Your task to perform on an android device: Check the settings for the Google Play Music app Image 0: 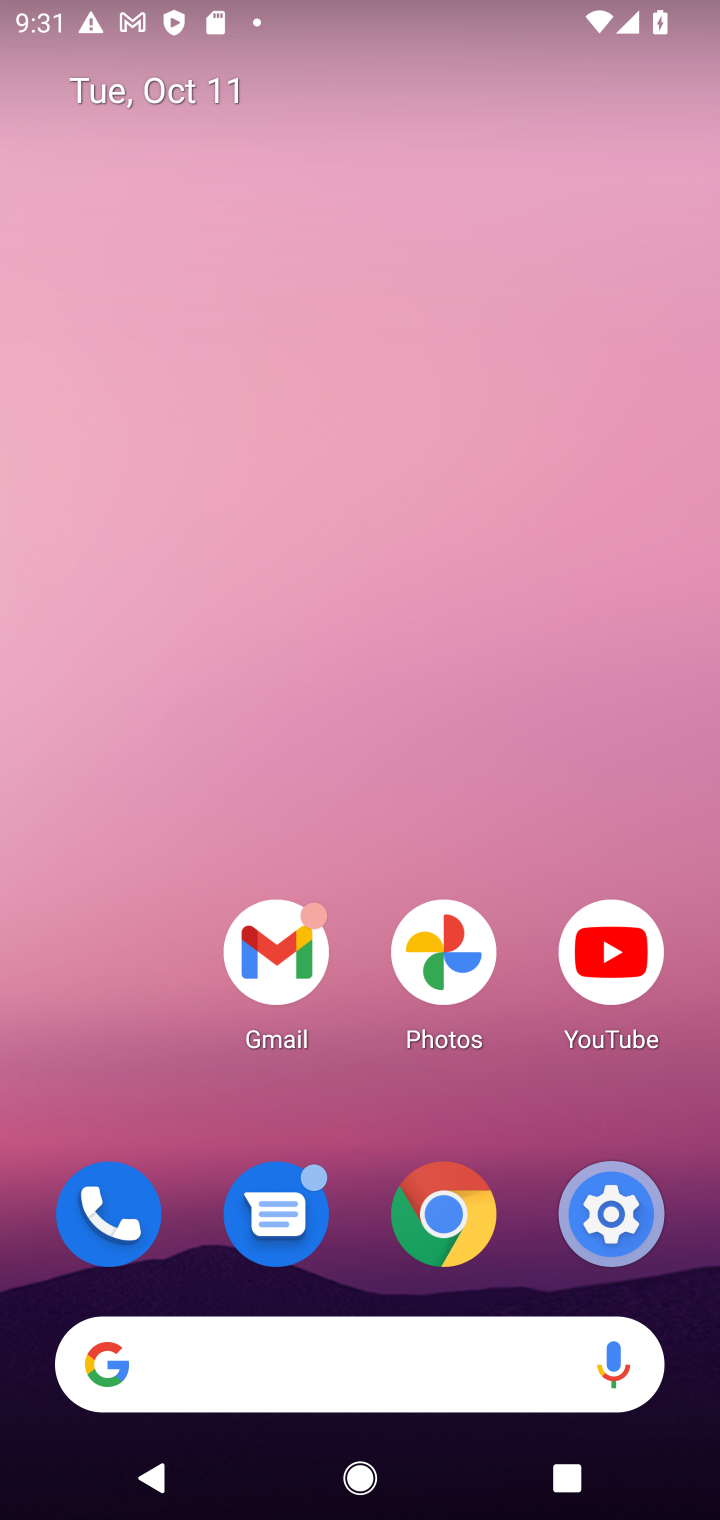
Step 0: drag from (510, 1246) to (473, 189)
Your task to perform on an android device: Check the settings for the Google Play Music app Image 1: 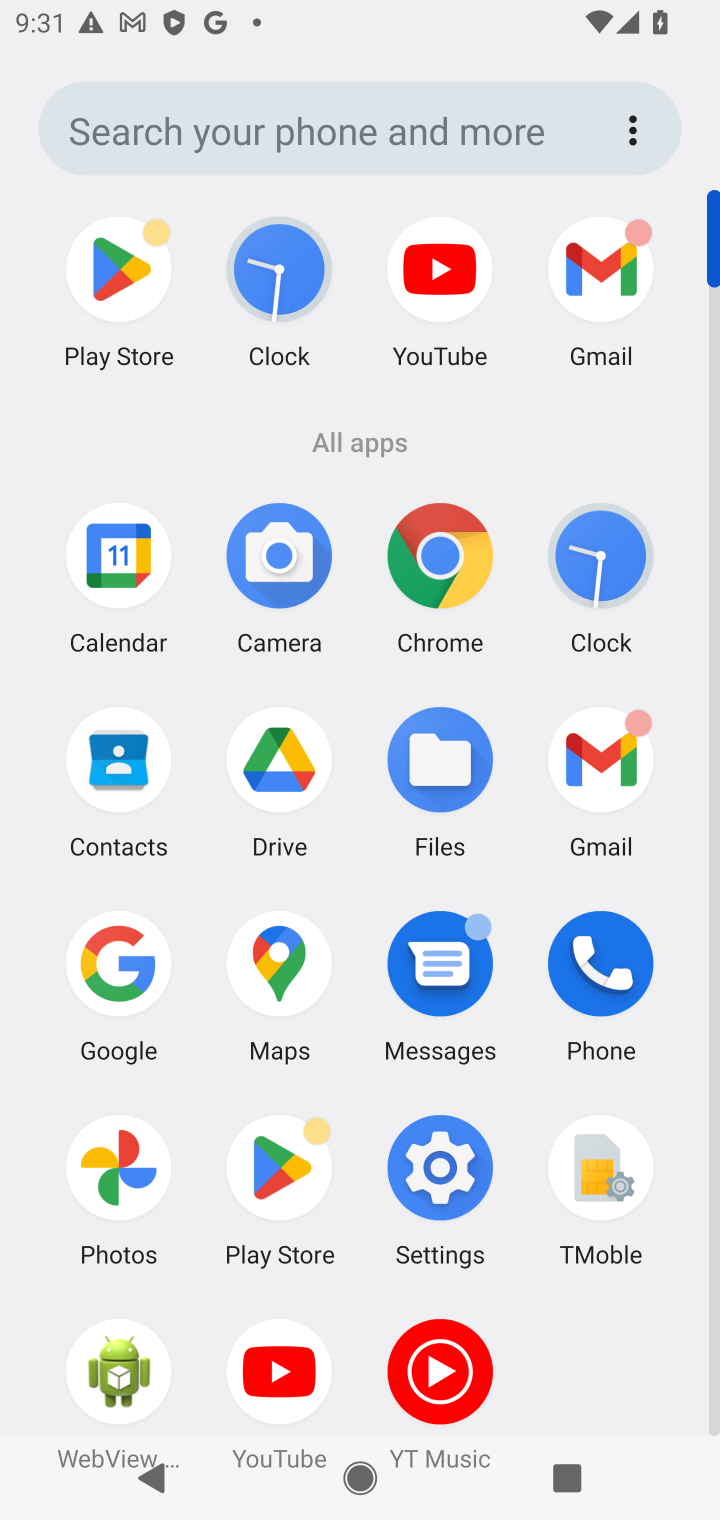
Step 1: task complete